Your task to perform on an android device: Open network settings Image 0: 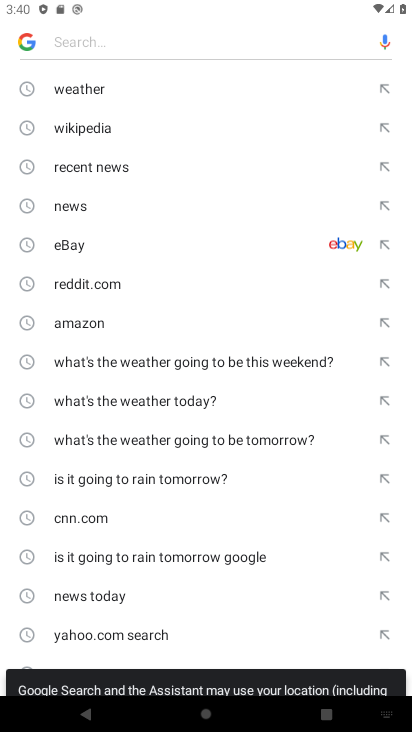
Step 0: press home button
Your task to perform on an android device: Open network settings Image 1: 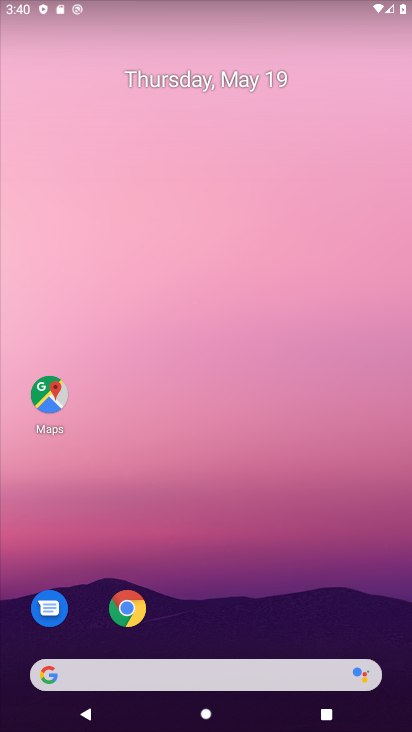
Step 1: drag from (220, 726) to (224, 226)
Your task to perform on an android device: Open network settings Image 2: 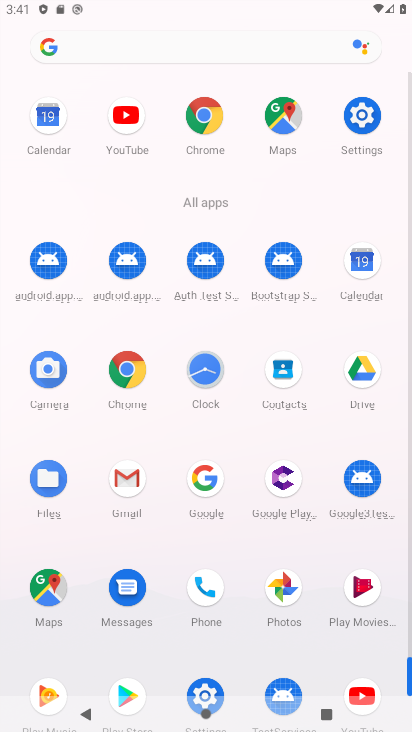
Step 2: click (363, 113)
Your task to perform on an android device: Open network settings Image 3: 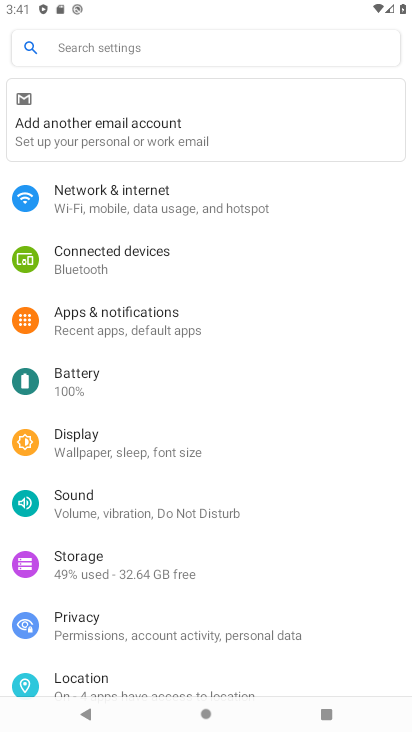
Step 3: click (121, 196)
Your task to perform on an android device: Open network settings Image 4: 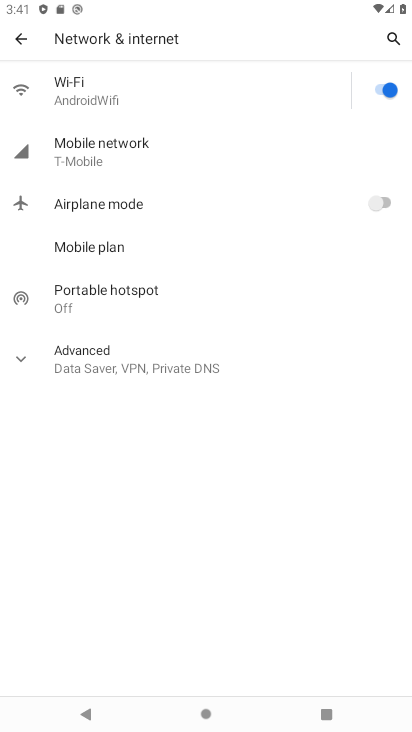
Step 4: click (80, 148)
Your task to perform on an android device: Open network settings Image 5: 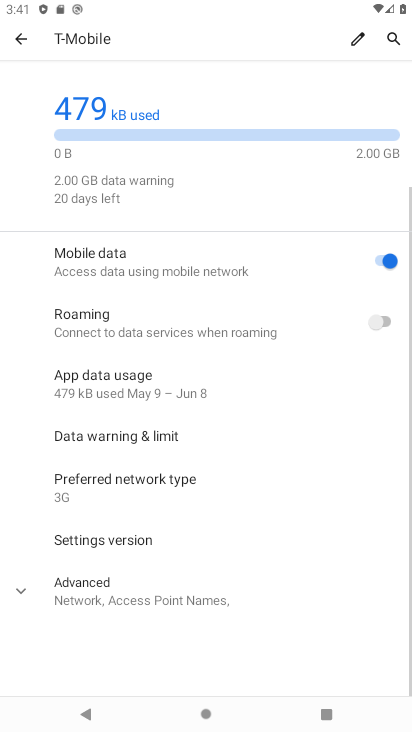
Step 5: task complete